Your task to perform on an android device: Is it going to rain today? Image 0: 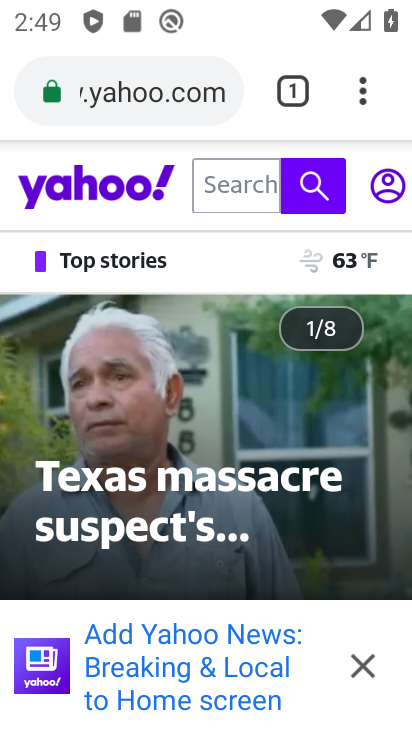
Step 0: press home button
Your task to perform on an android device: Is it going to rain today? Image 1: 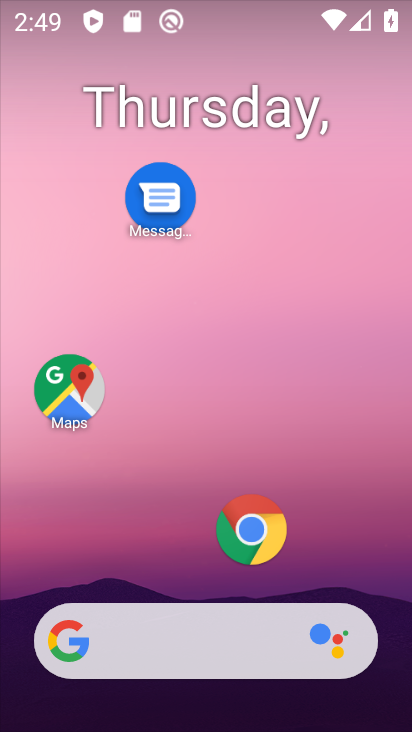
Step 1: click (243, 536)
Your task to perform on an android device: Is it going to rain today? Image 2: 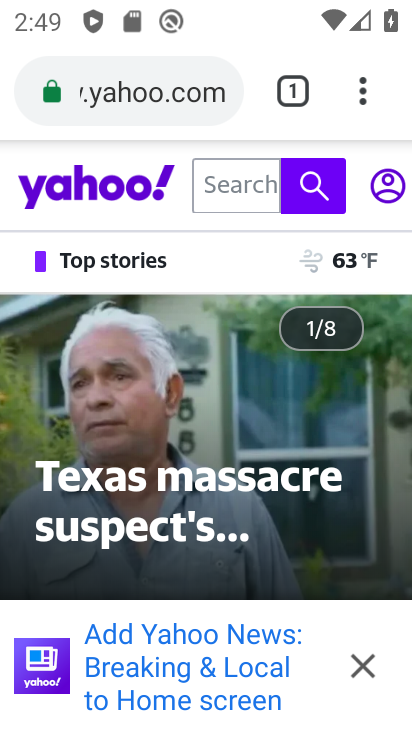
Step 2: click (185, 85)
Your task to perform on an android device: Is it going to rain today? Image 3: 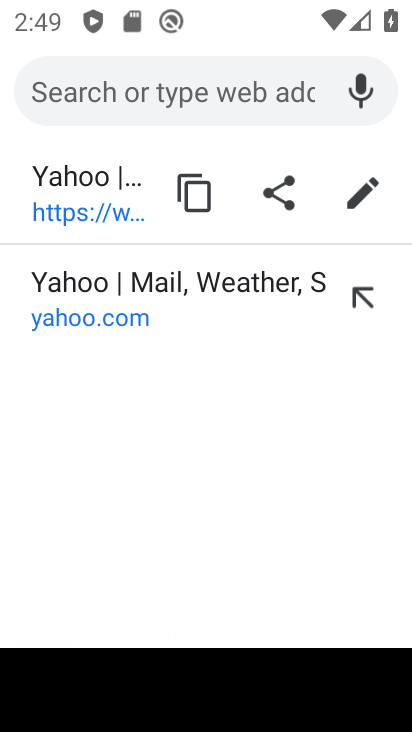
Step 3: type "Is it going to rain today?"
Your task to perform on an android device: Is it going to rain today? Image 4: 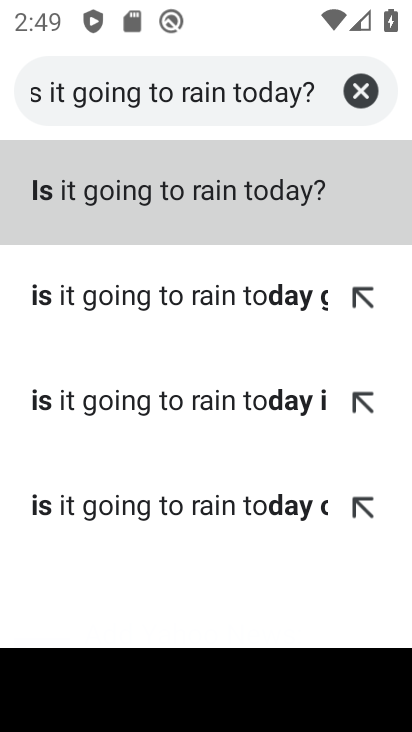
Step 4: click (174, 205)
Your task to perform on an android device: Is it going to rain today? Image 5: 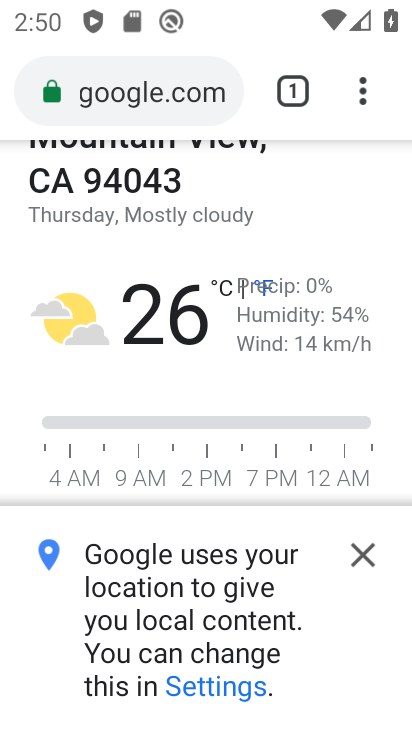
Step 5: task complete